Your task to perform on an android device: toggle improve location accuracy Image 0: 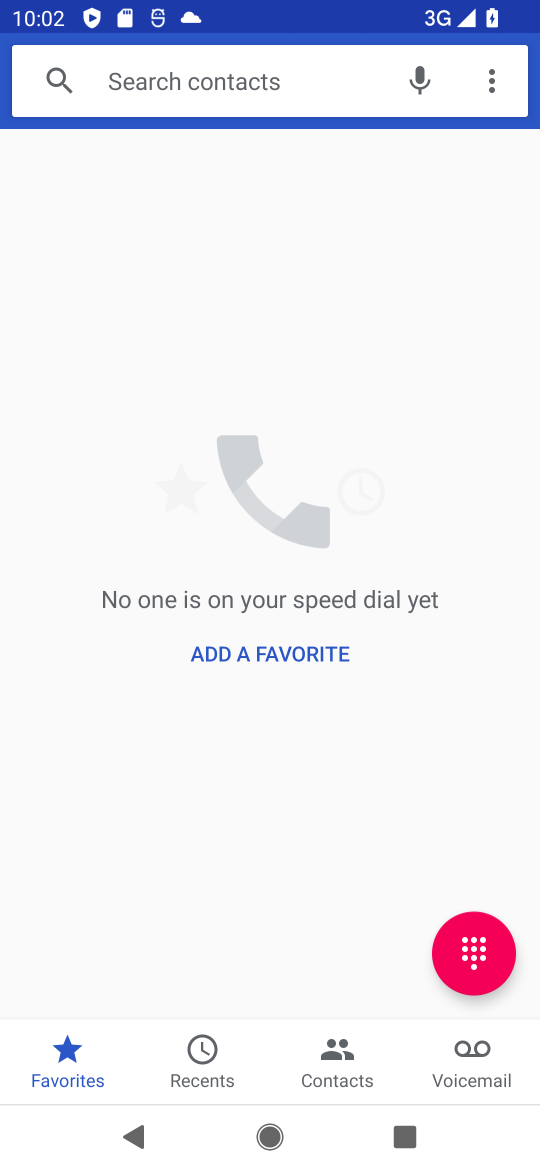
Step 0: press home button
Your task to perform on an android device: toggle improve location accuracy Image 1: 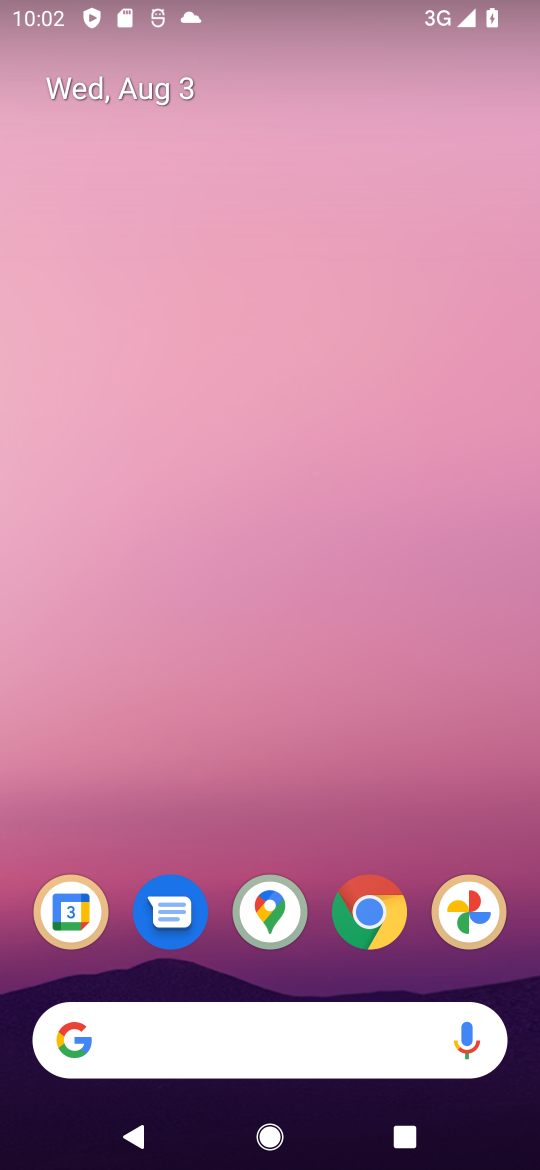
Step 1: drag from (255, 766) to (292, 60)
Your task to perform on an android device: toggle improve location accuracy Image 2: 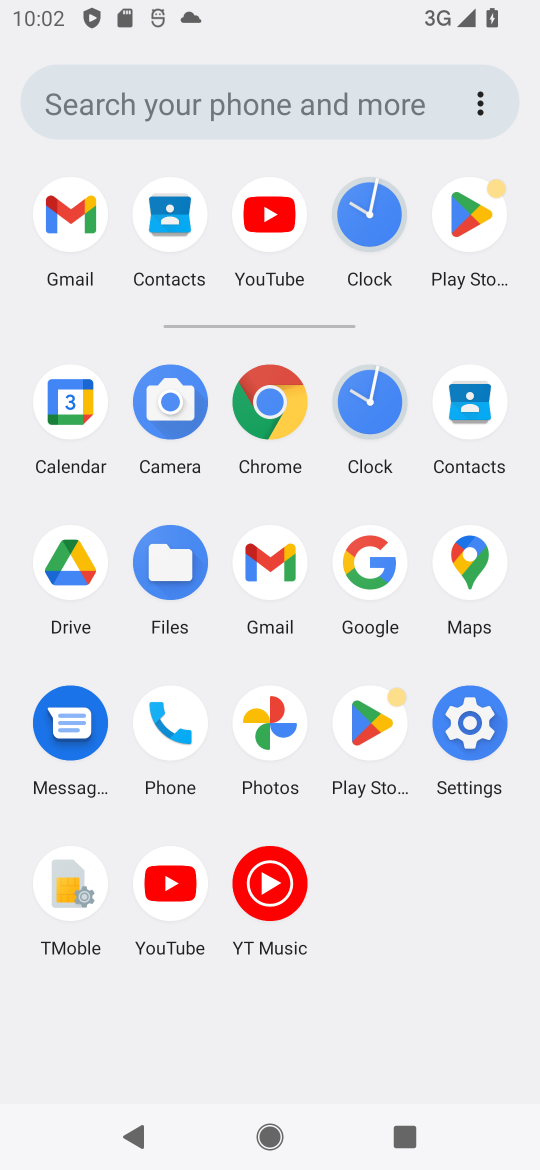
Step 2: click (439, 709)
Your task to perform on an android device: toggle improve location accuracy Image 3: 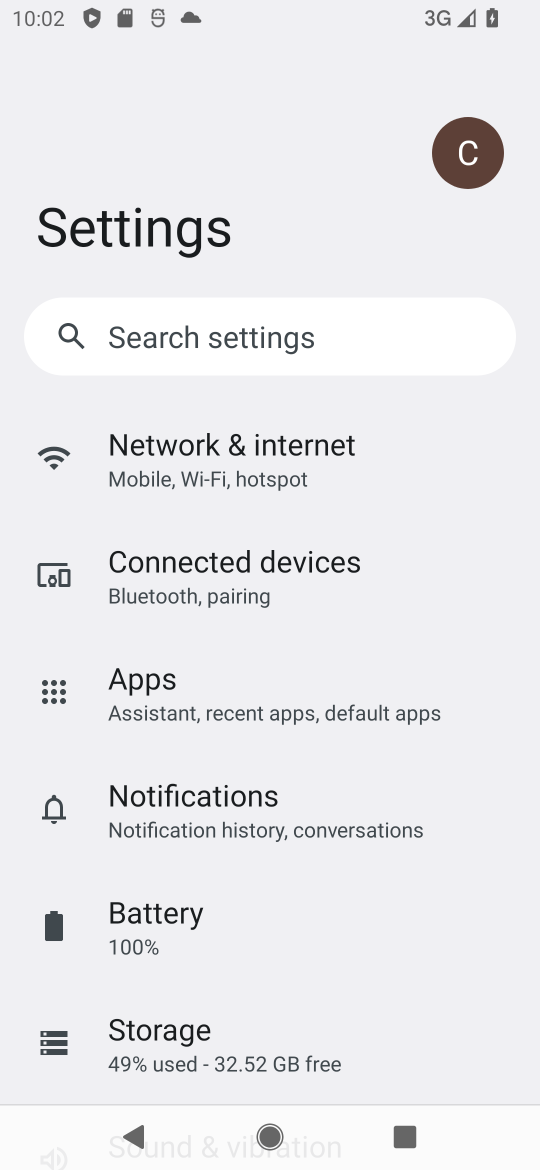
Step 3: drag from (347, 853) to (368, 491)
Your task to perform on an android device: toggle improve location accuracy Image 4: 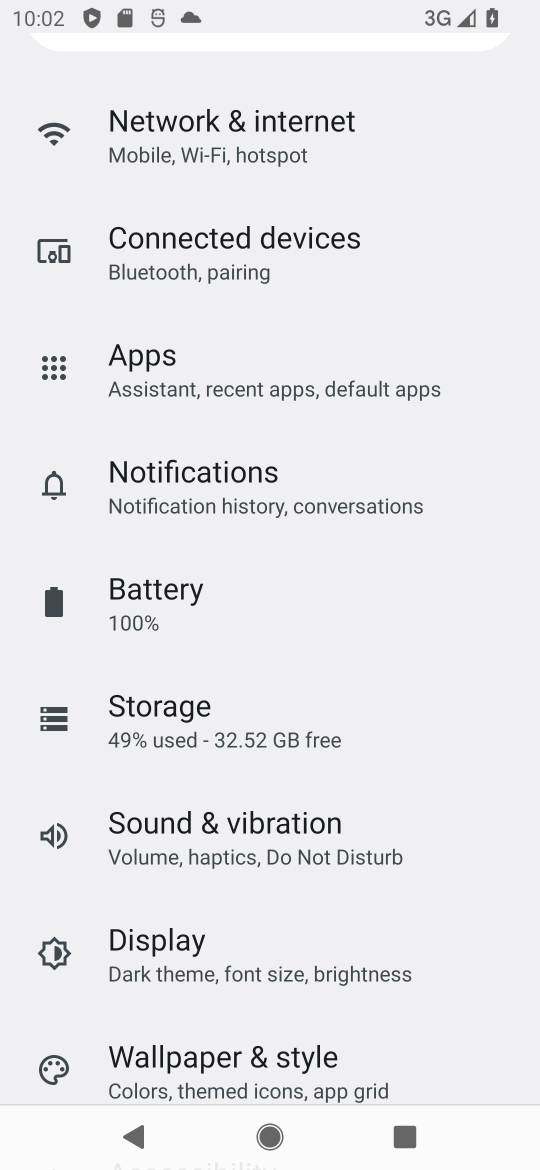
Step 4: drag from (323, 870) to (305, 433)
Your task to perform on an android device: toggle improve location accuracy Image 5: 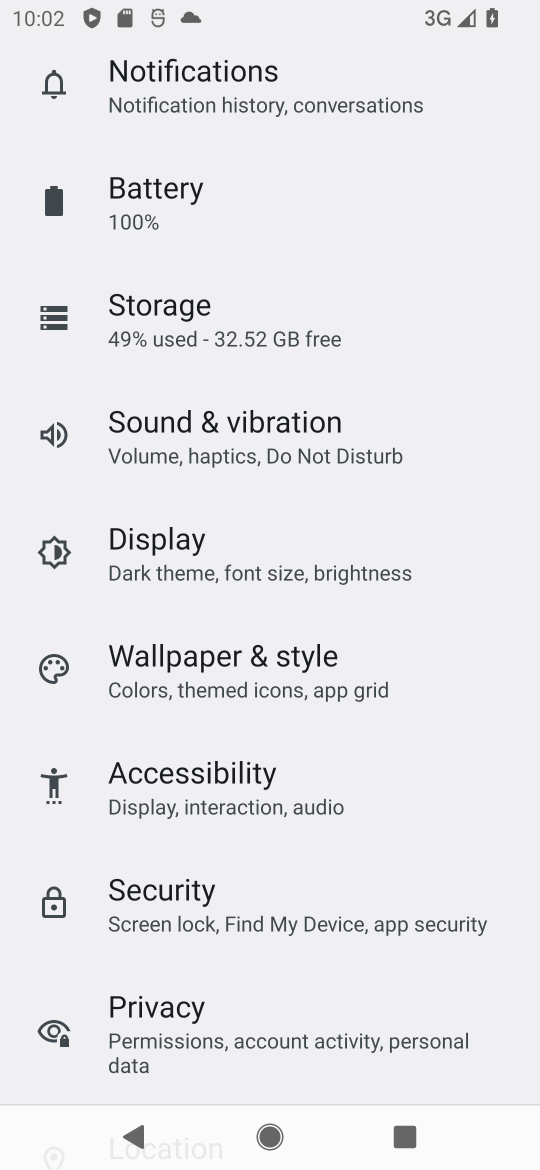
Step 5: drag from (254, 968) to (261, 367)
Your task to perform on an android device: toggle improve location accuracy Image 6: 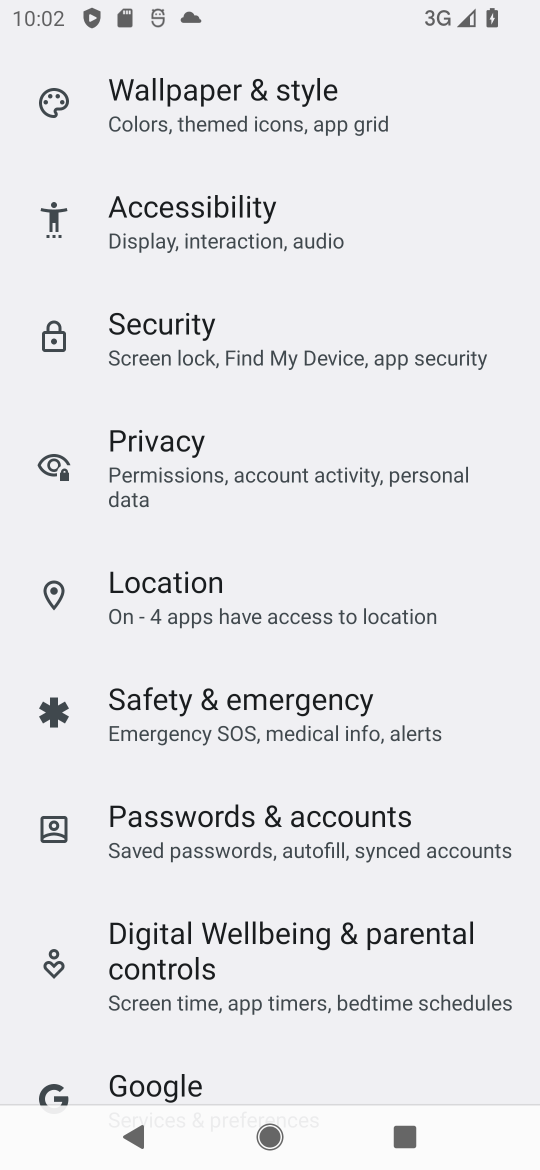
Step 6: click (200, 616)
Your task to perform on an android device: toggle improve location accuracy Image 7: 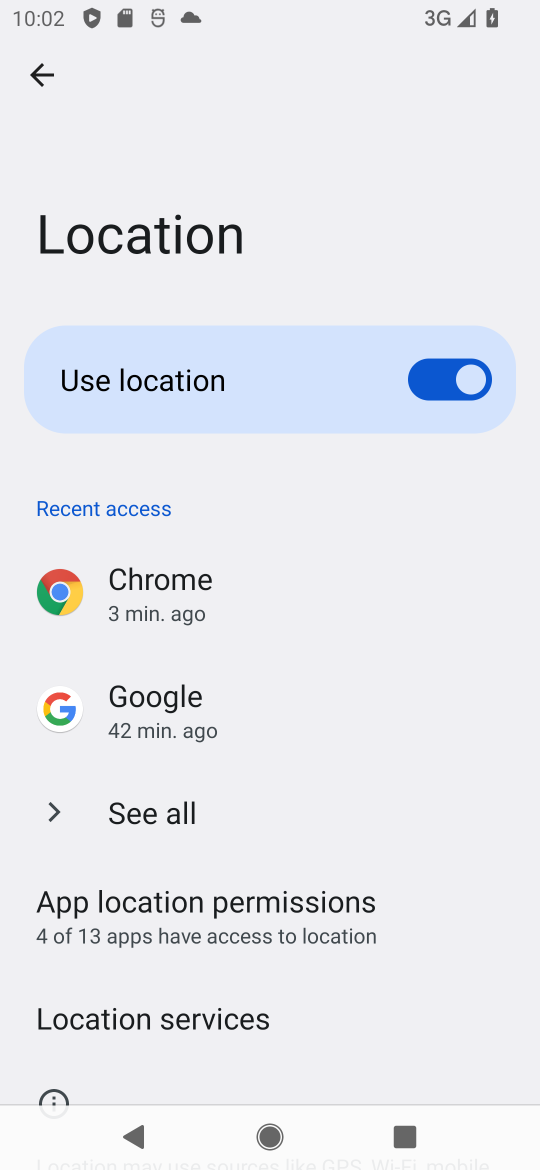
Step 7: task complete